Your task to perform on an android device: Turn on the flashlight Image 0: 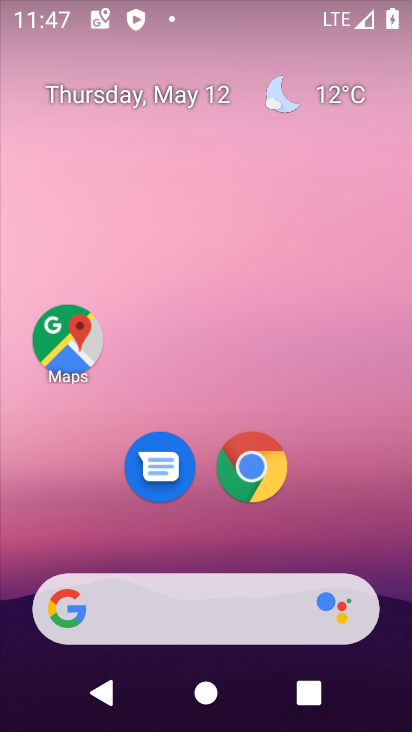
Step 0: drag from (347, 460) to (270, 6)
Your task to perform on an android device: Turn on the flashlight Image 1: 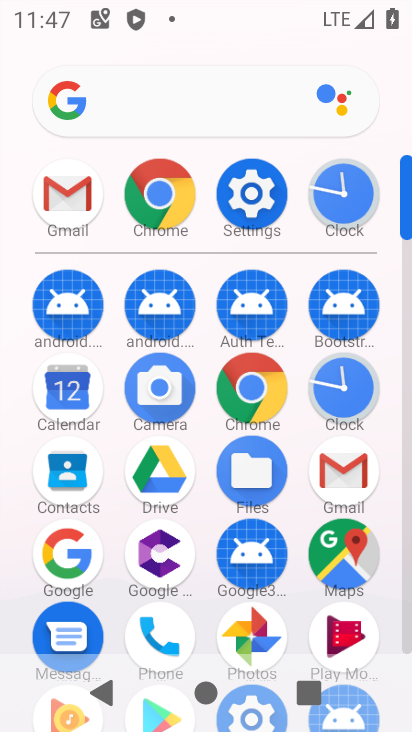
Step 1: drag from (17, 518) to (13, 210)
Your task to perform on an android device: Turn on the flashlight Image 2: 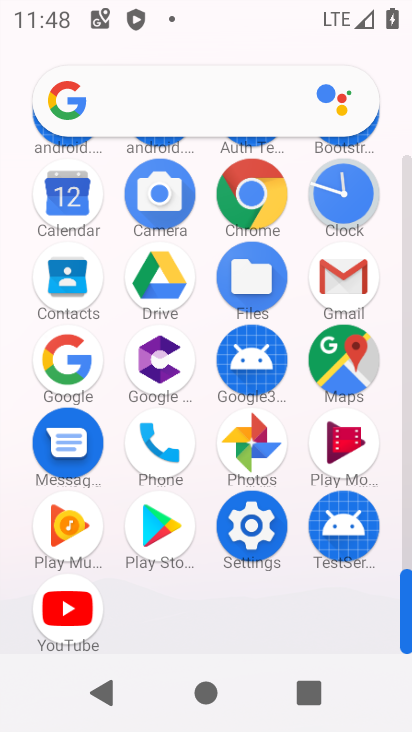
Step 2: click (243, 522)
Your task to perform on an android device: Turn on the flashlight Image 3: 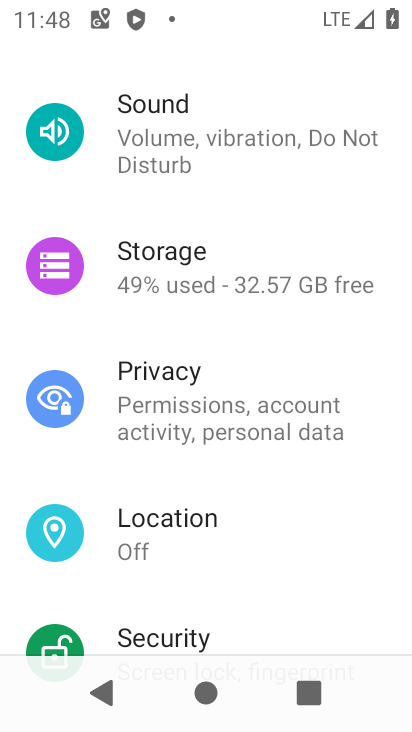
Step 3: drag from (186, 125) to (204, 547)
Your task to perform on an android device: Turn on the flashlight Image 4: 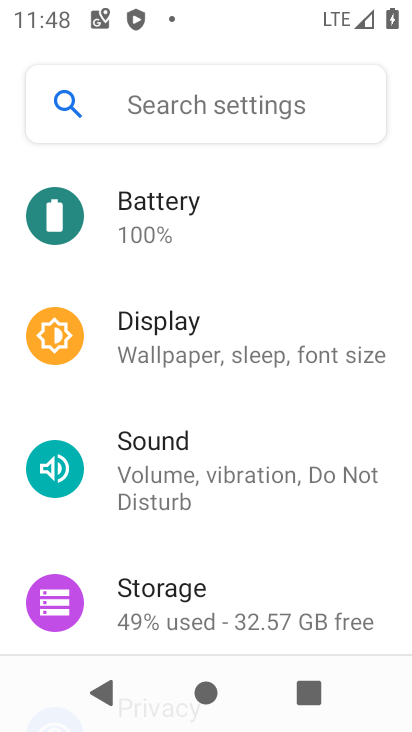
Step 4: drag from (206, 244) to (235, 560)
Your task to perform on an android device: Turn on the flashlight Image 5: 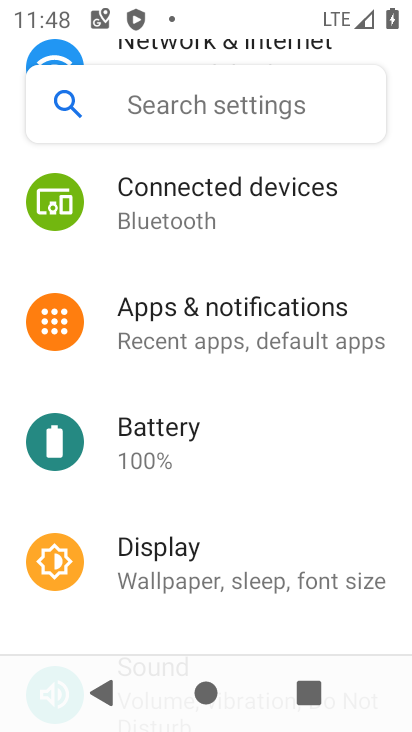
Step 5: drag from (228, 268) to (237, 547)
Your task to perform on an android device: Turn on the flashlight Image 6: 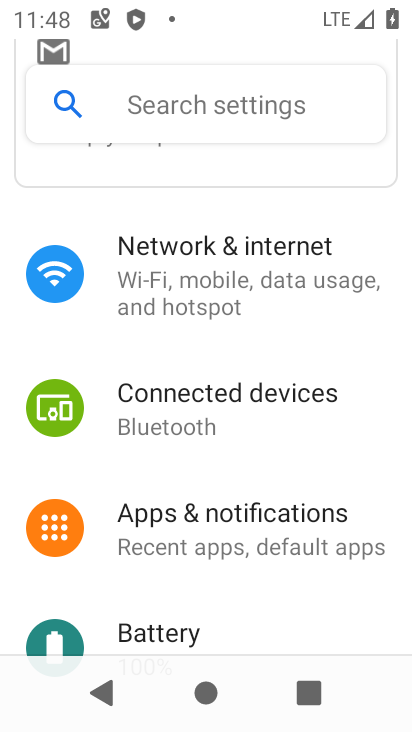
Step 6: click (220, 279)
Your task to perform on an android device: Turn on the flashlight Image 7: 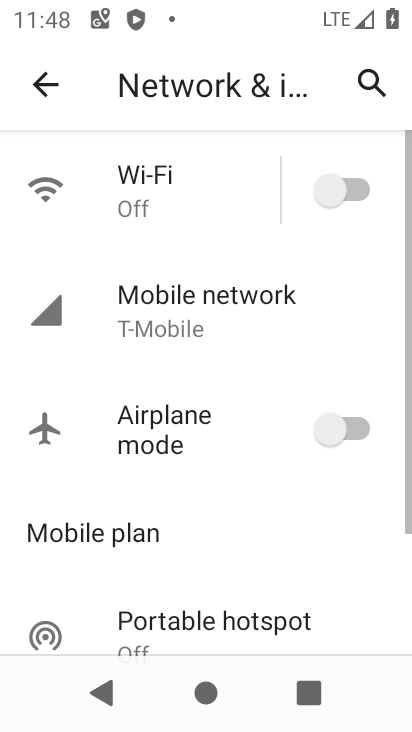
Step 7: drag from (153, 532) to (206, 113)
Your task to perform on an android device: Turn on the flashlight Image 8: 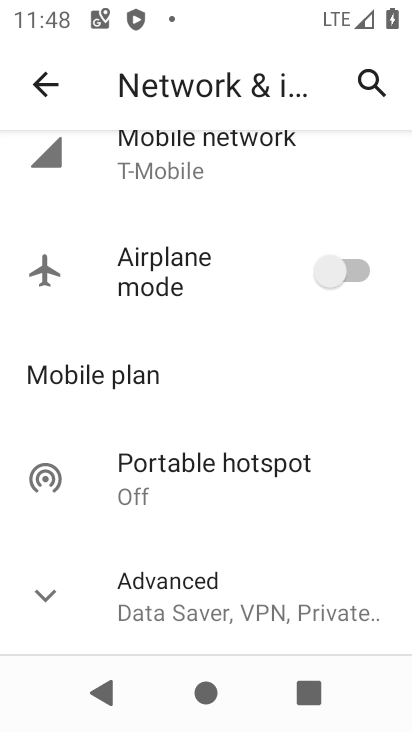
Step 8: drag from (215, 442) to (246, 166)
Your task to perform on an android device: Turn on the flashlight Image 9: 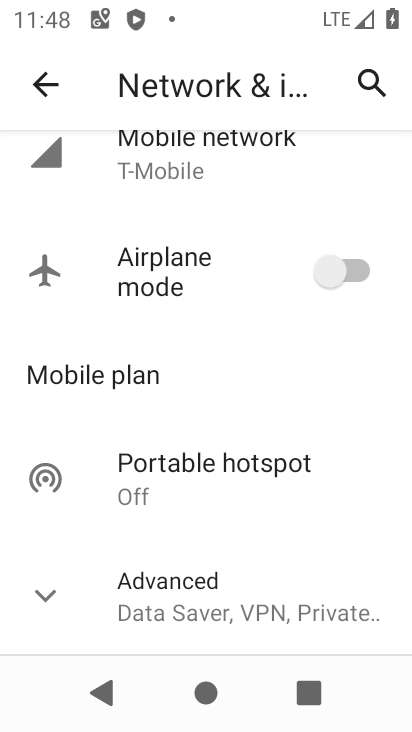
Step 9: drag from (230, 535) to (213, 266)
Your task to perform on an android device: Turn on the flashlight Image 10: 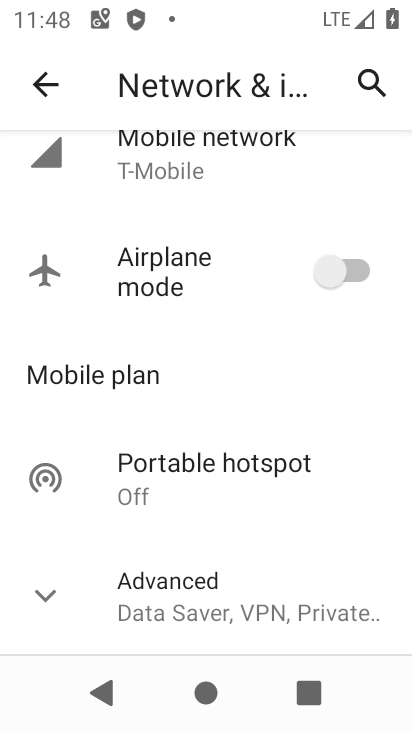
Step 10: click (40, 588)
Your task to perform on an android device: Turn on the flashlight Image 11: 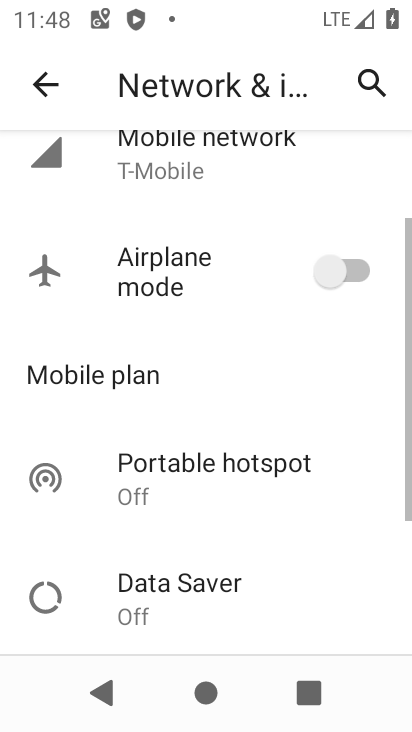
Step 11: task complete